Your task to perform on an android device: What's the weather going to be this weekend? Image 0: 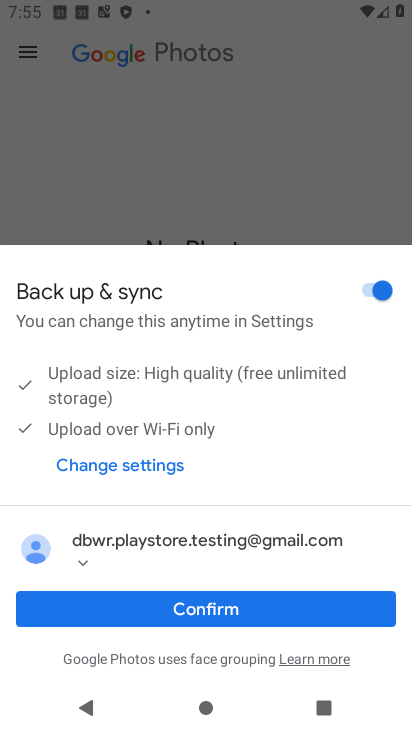
Step 0: press home button
Your task to perform on an android device: What's the weather going to be this weekend? Image 1: 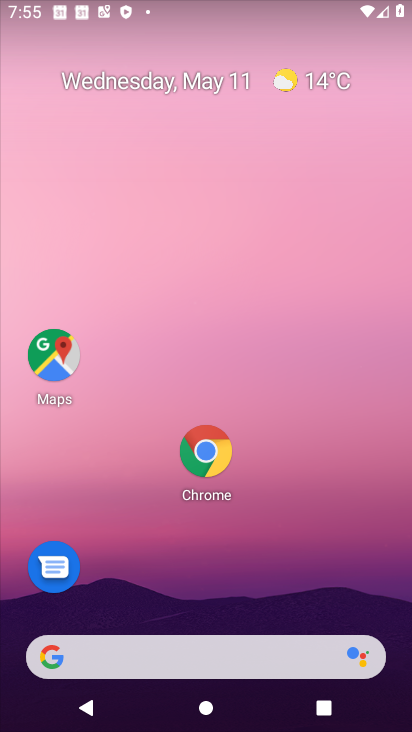
Step 1: click (312, 74)
Your task to perform on an android device: What's the weather going to be this weekend? Image 2: 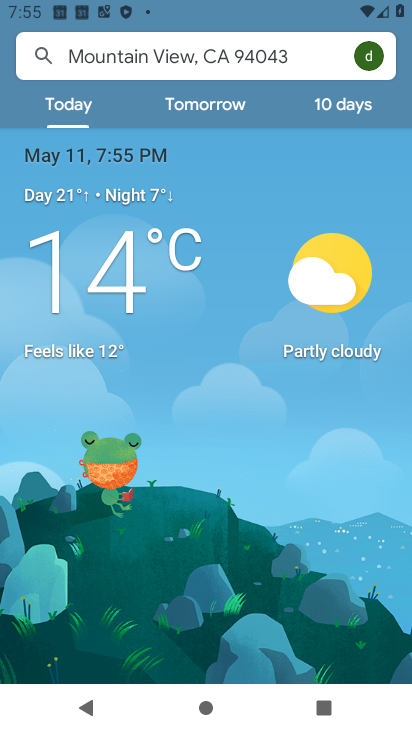
Step 2: click (344, 107)
Your task to perform on an android device: What's the weather going to be this weekend? Image 3: 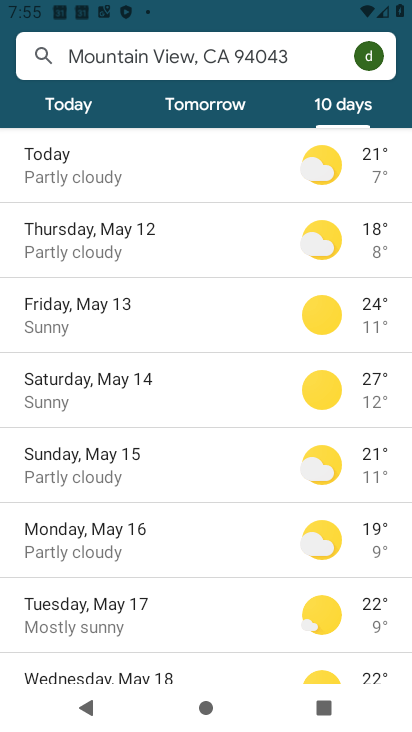
Step 3: click (118, 397)
Your task to perform on an android device: What's the weather going to be this weekend? Image 4: 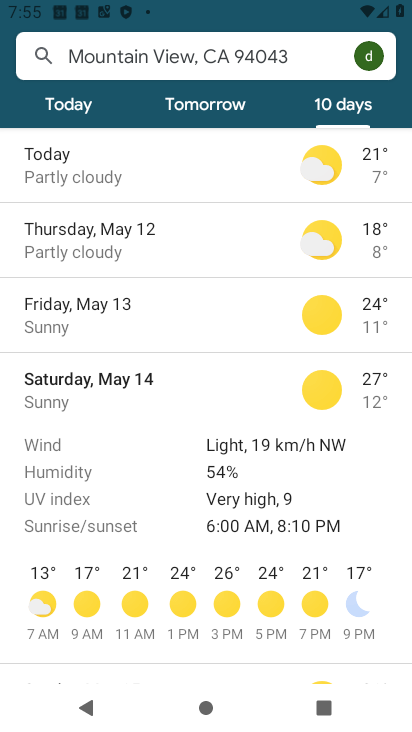
Step 4: task complete